Your task to perform on an android device: find photos in the google photos app Image 0: 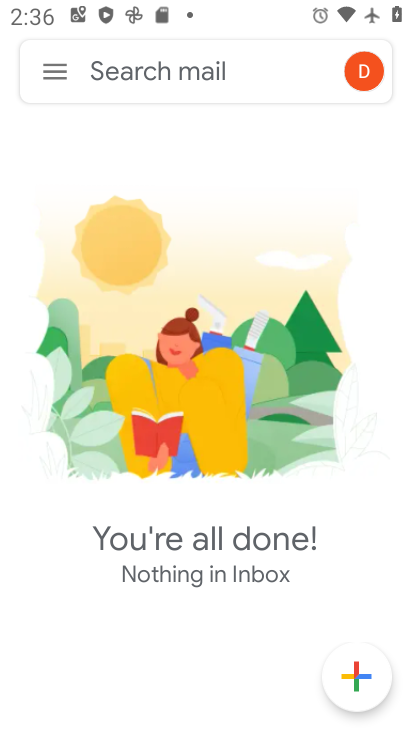
Step 0: press home button
Your task to perform on an android device: find photos in the google photos app Image 1: 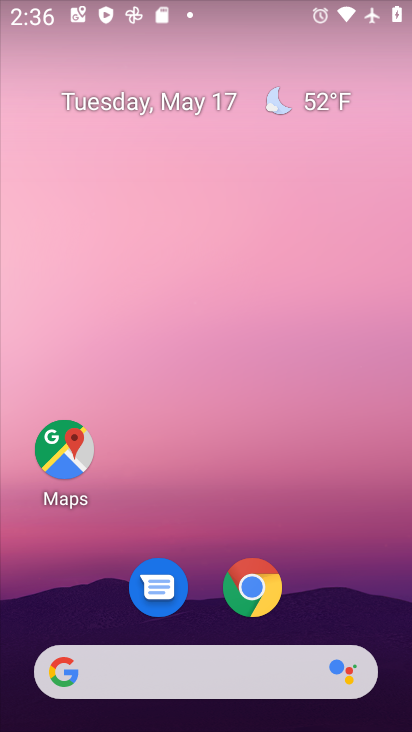
Step 1: drag from (348, 597) to (400, 49)
Your task to perform on an android device: find photos in the google photos app Image 2: 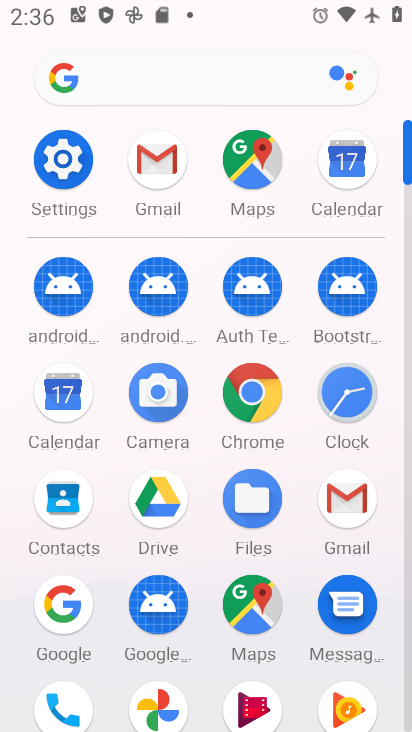
Step 2: click (155, 690)
Your task to perform on an android device: find photos in the google photos app Image 3: 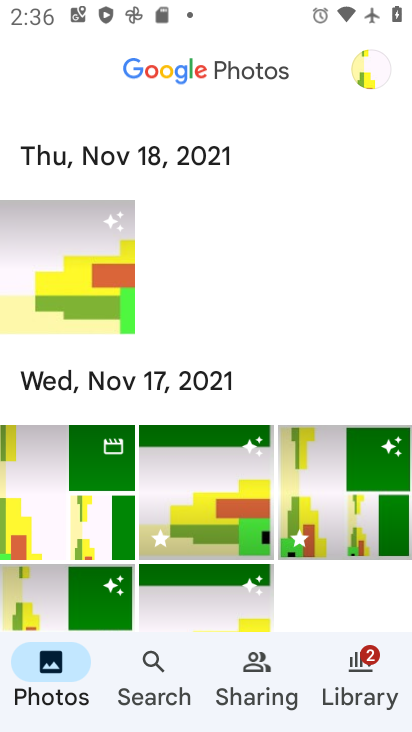
Step 3: task complete